Your task to perform on an android device: change notifications settings Image 0: 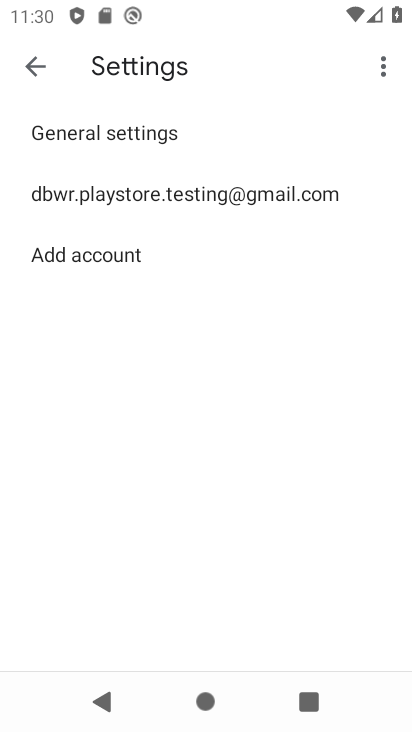
Step 0: press home button
Your task to perform on an android device: change notifications settings Image 1: 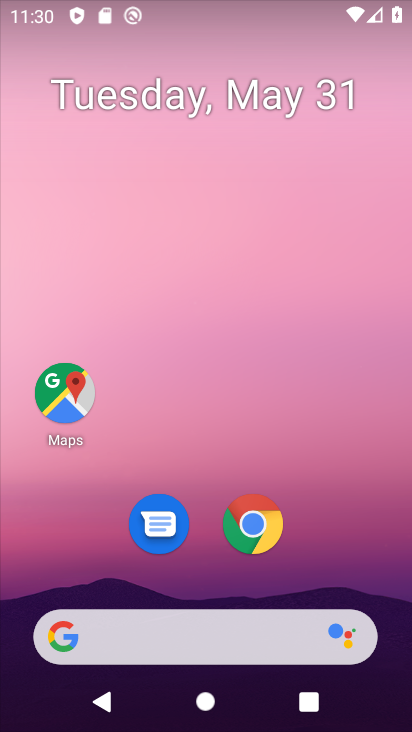
Step 1: drag from (327, 514) to (267, 1)
Your task to perform on an android device: change notifications settings Image 2: 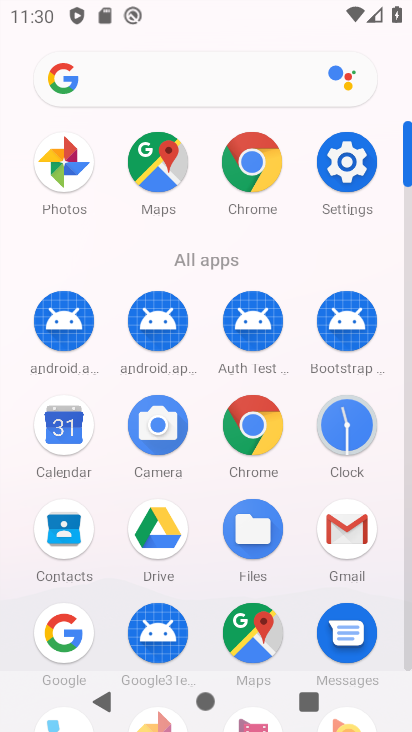
Step 2: click (345, 169)
Your task to perform on an android device: change notifications settings Image 3: 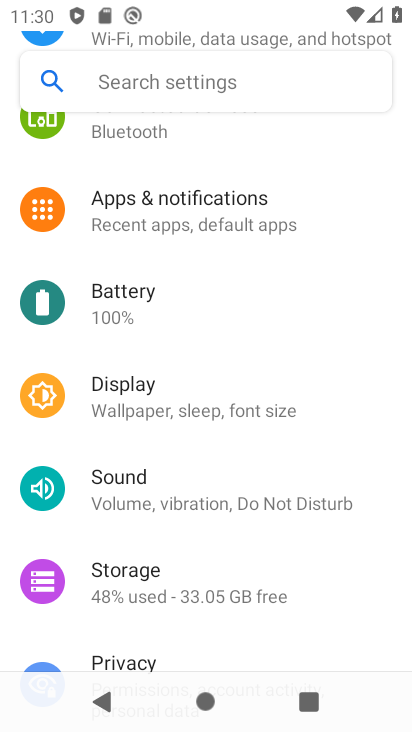
Step 3: click (254, 217)
Your task to perform on an android device: change notifications settings Image 4: 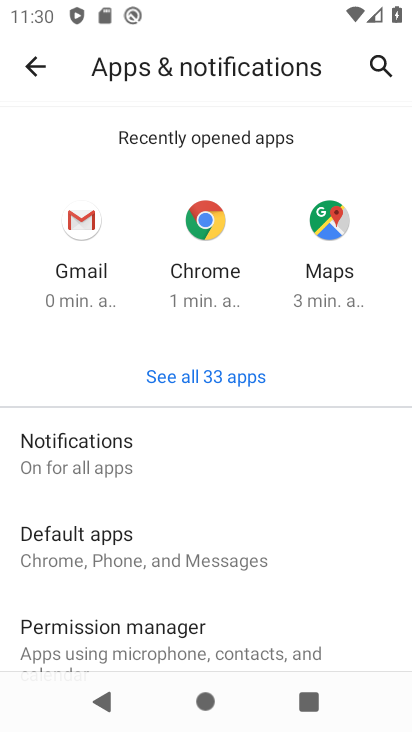
Step 4: click (151, 450)
Your task to perform on an android device: change notifications settings Image 5: 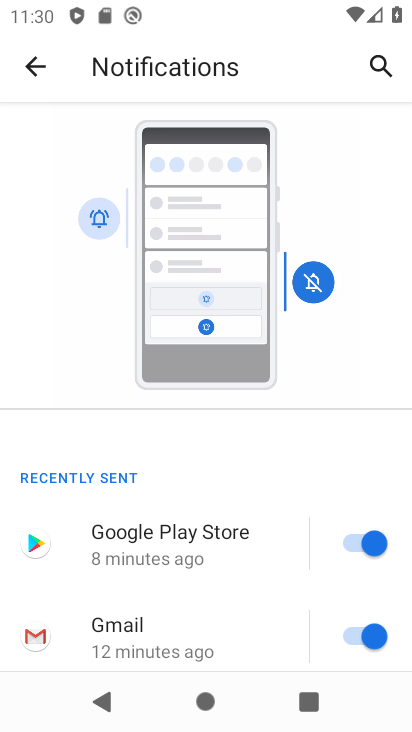
Step 5: drag from (230, 597) to (316, 166)
Your task to perform on an android device: change notifications settings Image 6: 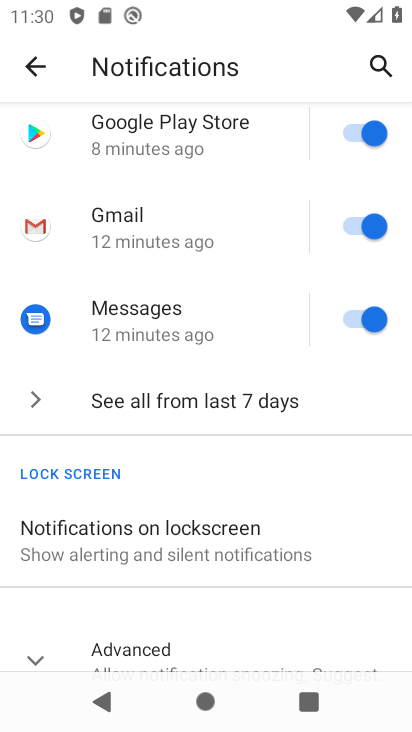
Step 6: click (268, 404)
Your task to perform on an android device: change notifications settings Image 7: 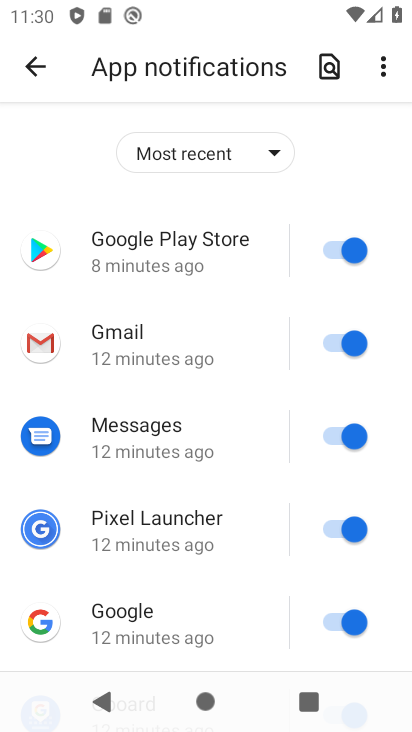
Step 7: click (345, 245)
Your task to perform on an android device: change notifications settings Image 8: 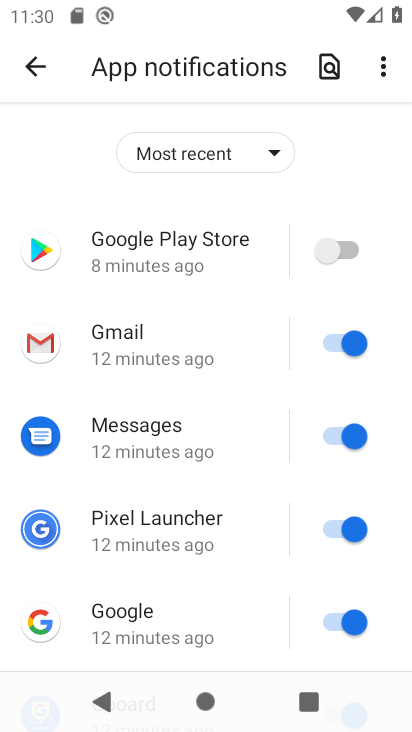
Step 8: click (335, 336)
Your task to perform on an android device: change notifications settings Image 9: 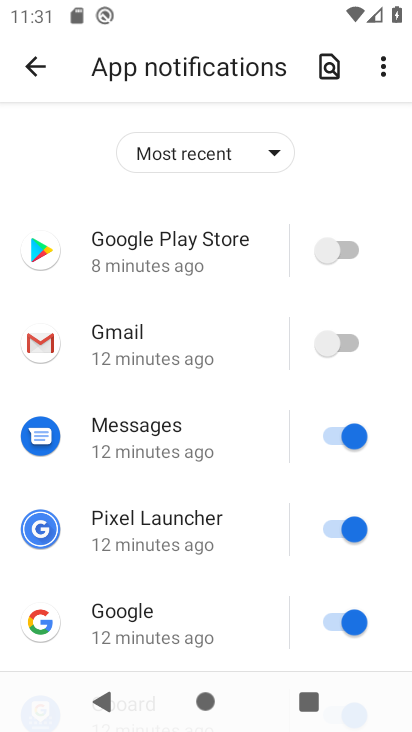
Step 9: click (349, 422)
Your task to perform on an android device: change notifications settings Image 10: 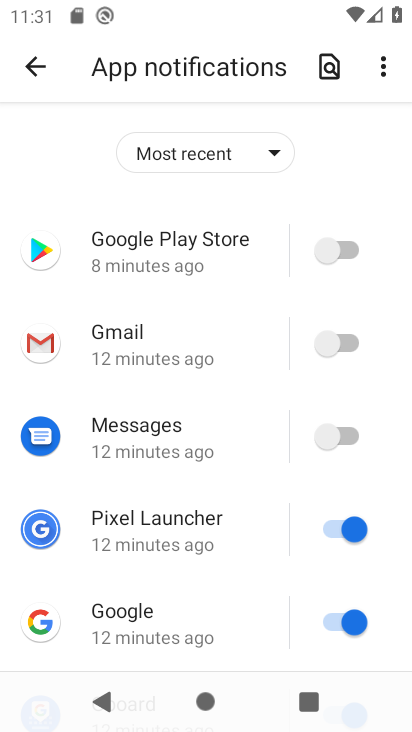
Step 10: click (348, 523)
Your task to perform on an android device: change notifications settings Image 11: 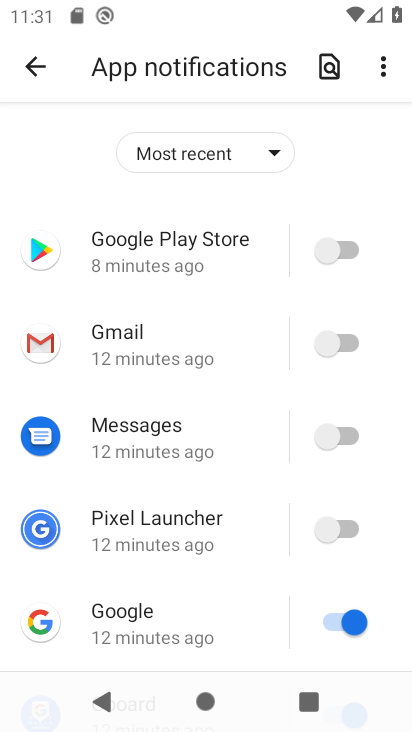
Step 11: click (351, 616)
Your task to perform on an android device: change notifications settings Image 12: 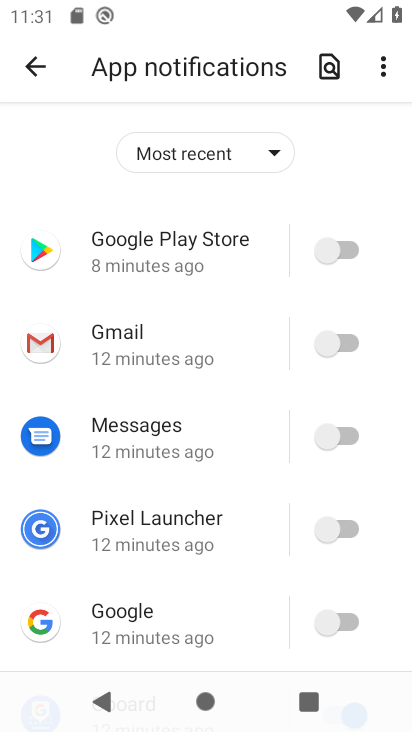
Step 12: drag from (253, 567) to (297, 140)
Your task to perform on an android device: change notifications settings Image 13: 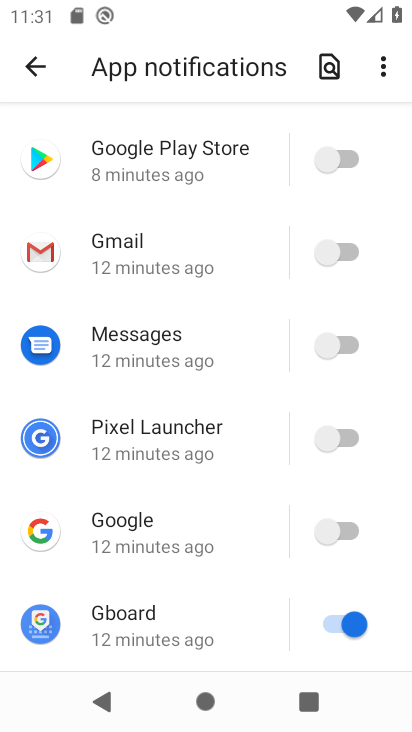
Step 13: click (338, 620)
Your task to perform on an android device: change notifications settings Image 14: 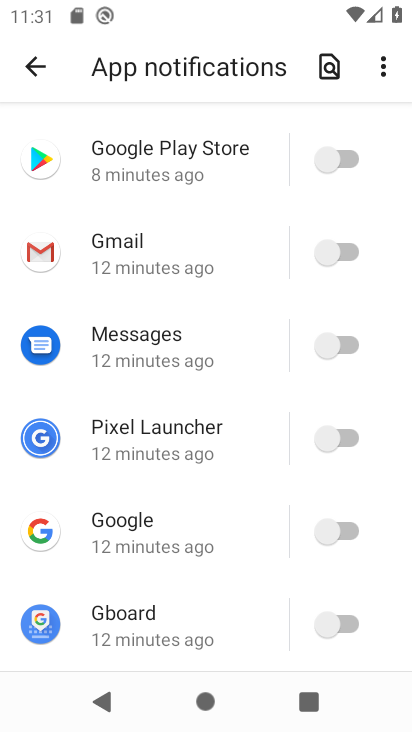
Step 14: task complete